Your task to perform on an android device: Open calendar and show me the first week of next month Image 0: 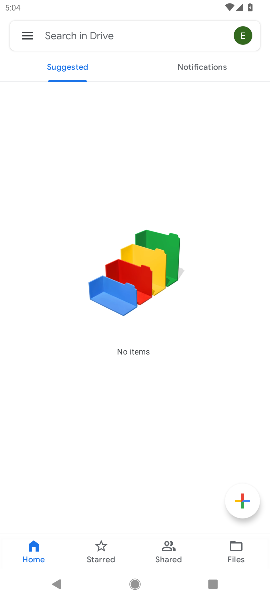
Step 0: press home button
Your task to perform on an android device: Open calendar and show me the first week of next month Image 1: 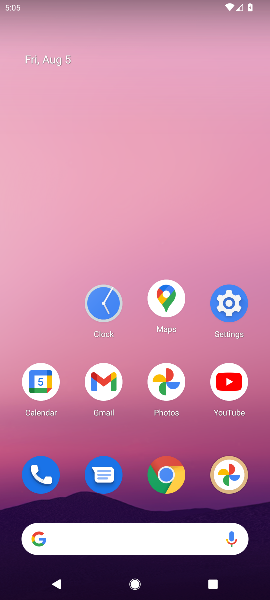
Step 1: click (32, 398)
Your task to perform on an android device: Open calendar and show me the first week of next month Image 2: 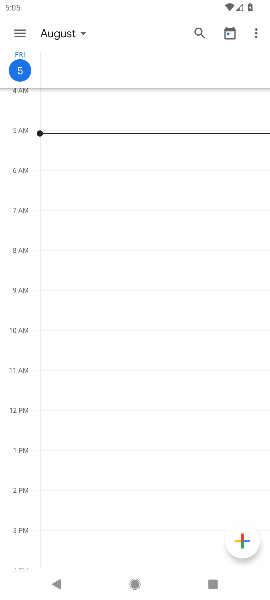
Step 2: click (86, 34)
Your task to perform on an android device: Open calendar and show me the first week of next month Image 3: 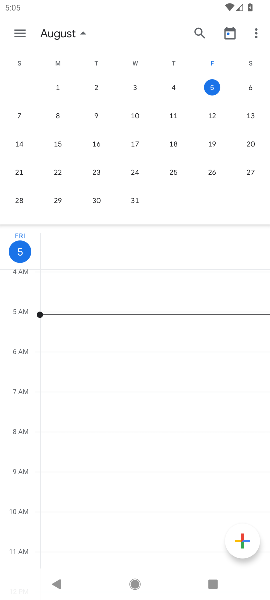
Step 3: drag from (255, 145) to (56, 149)
Your task to perform on an android device: Open calendar and show me the first week of next month Image 4: 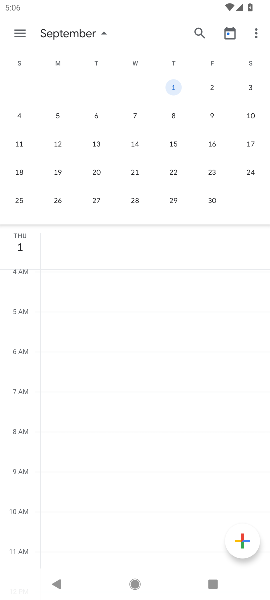
Step 4: click (20, 24)
Your task to perform on an android device: Open calendar and show me the first week of next month Image 5: 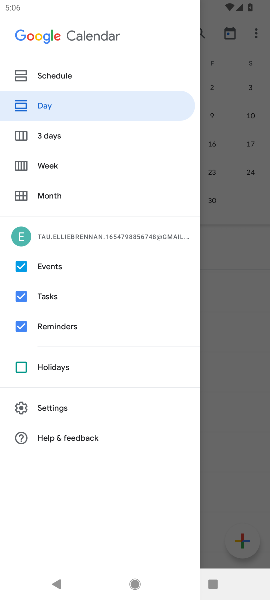
Step 5: click (41, 157)
Your task to perform on an android device: Open calendar and show me the first week of next month Image 6: 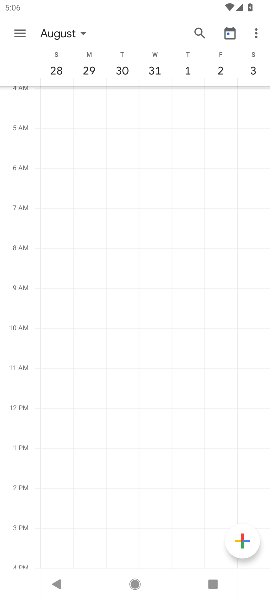
Step 6: click (82, 31)
Your task to perform on an android device: Open calendar and show me the first week of next month Image 7: 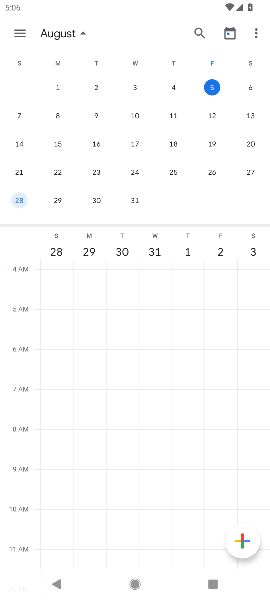
Step 7: drag from (245, 143) to (56, 140)
Your task to perform on an android device: Open calendar and show me the first week of next month Image 8: 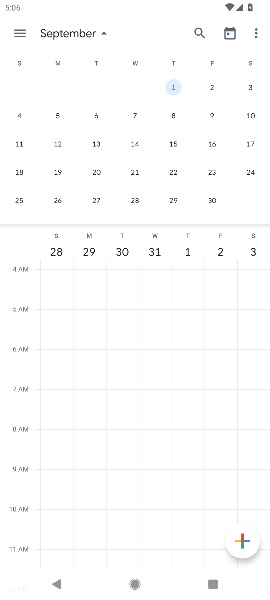
Step 8: click (211, 87)
Your task to perform on an android device: Open calendar and show me the first week of next month Image 9: 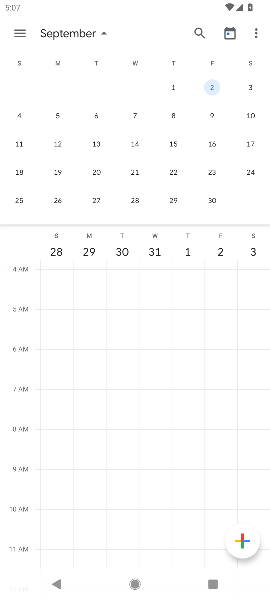
Step 9: click (211, 87)
Your task to perform on an android device: Open calendar and show me the first week of next month Image 10: 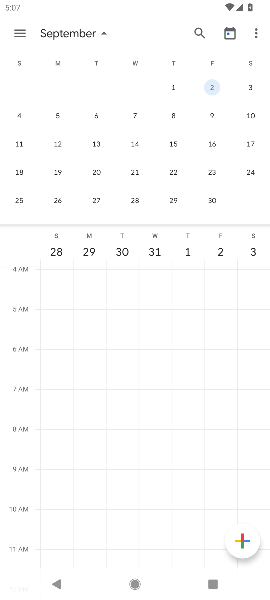
Step 10: click (20, 31)
Your task to perform on an android device: Open calendar and show me the first week of next month Image 11: 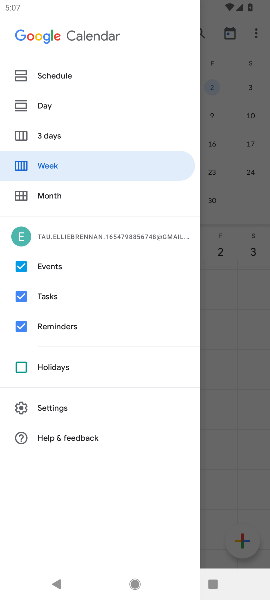
Step 11: click (56, 163)
Your task to perform on an android device: Open calendar and show me the first week of next month Image 12: 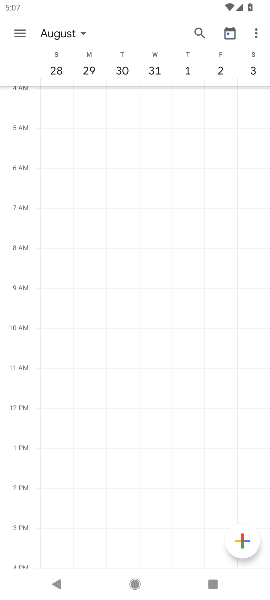
Step 12: task complete